Your task to perform on an android device: Search for Italian restaurants on Maps Image 0: 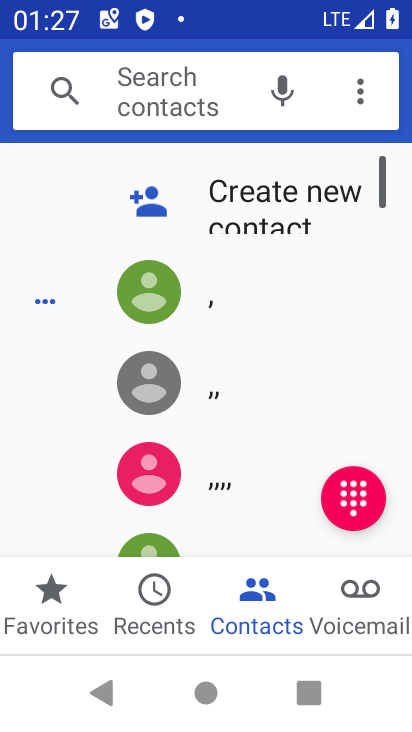
Step 0: press home button
Your task to perform on an android device: Search for Italian restaurants on Maps Image 1: 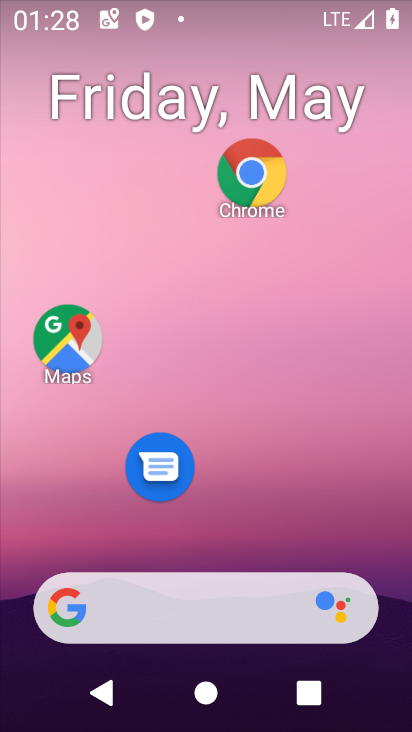
Step 1: drag from (254, 658) to (225, 127)
Your task to perform on an android device: Search for Italian restaurants on Maps Image 2: 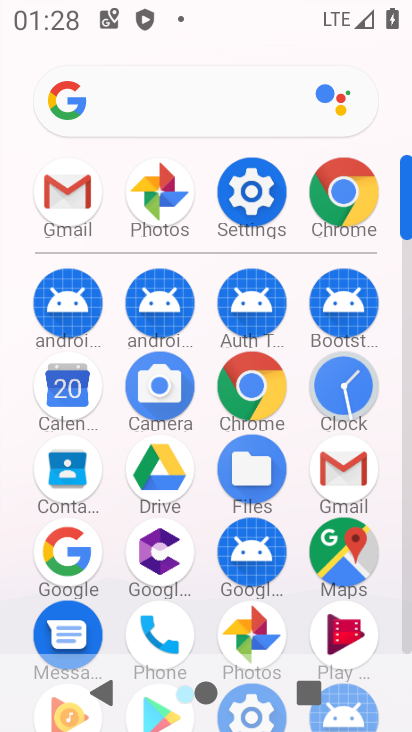
Step 2: click (343, 551)
Your task to perform on an android device: Search for Italian restaurants on Maps Image 3: 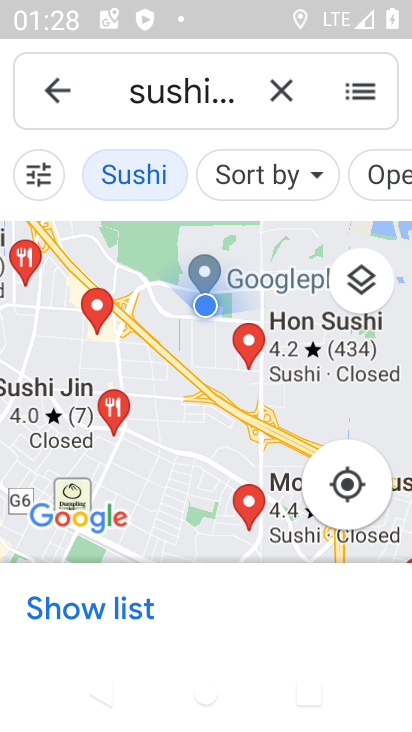
Step 3: click (287, 91)
Your task to perform on an android device: Search for Italian restaurants on Maps Image 4: 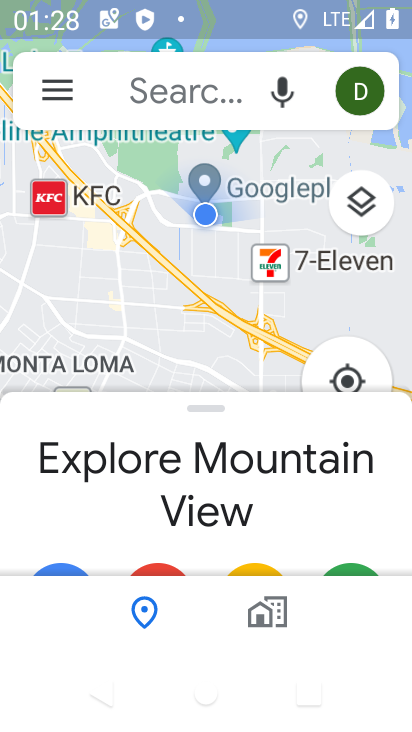
Step 4: click (243, 90)
Your task to perform on an android device: Search for Italian restaurants on Maps Image 5: 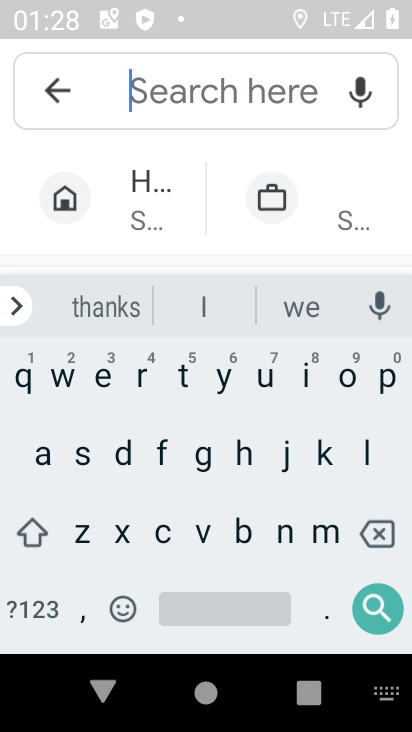
Step 5: click (306, 382)
Your task to perform on an android device: Search for Italian restaurants on Maps Image 6: 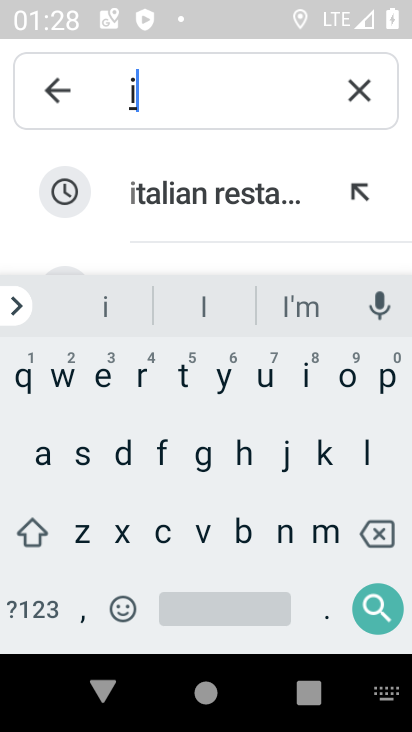
Step 6: click (189, 198)
Your task to perform on an android device: Search for Italian restaurants on Maps Image 7: 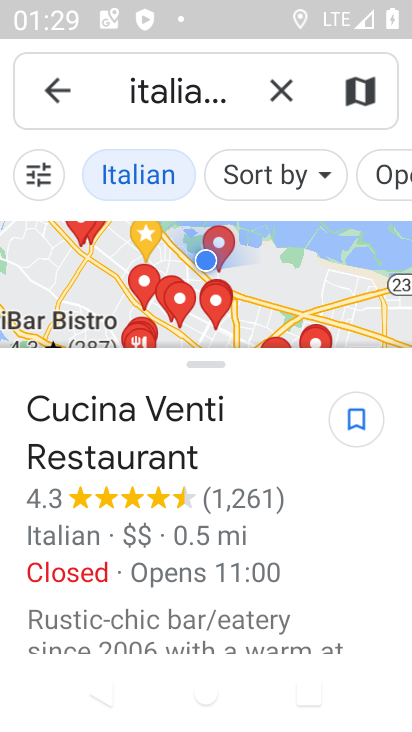
Step 7: click (172, 279)
Your task to perform on an android device: Search for Italian restaurants on Maps Image 8: 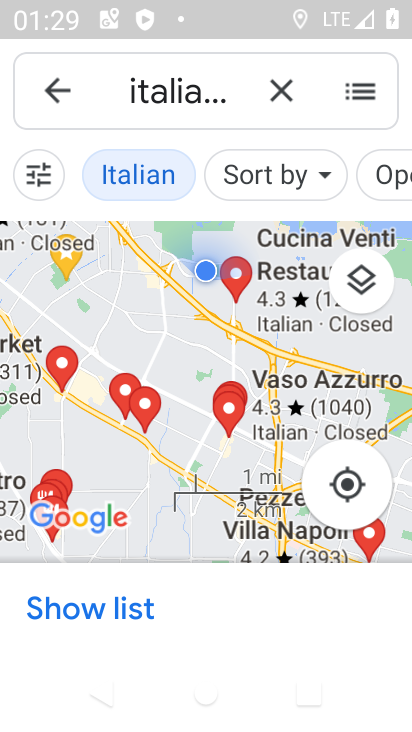
Step 8: task complete